Your task to perform on an android device: Find coffee shops on Maps Image 0: 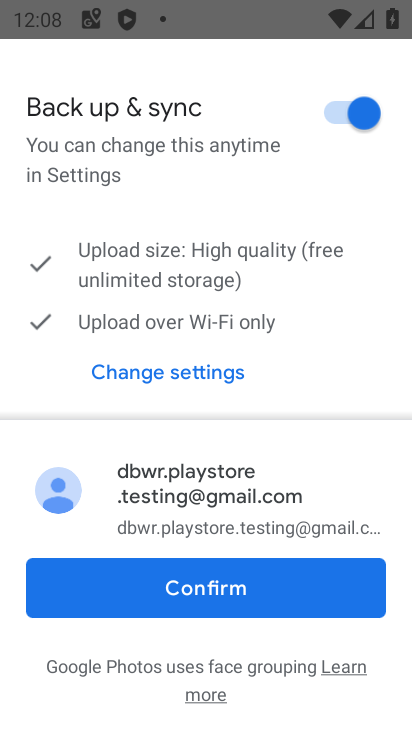
Step 0: press home button
Your task to perform on an android device: Find coffee shops on Maps Image 1: 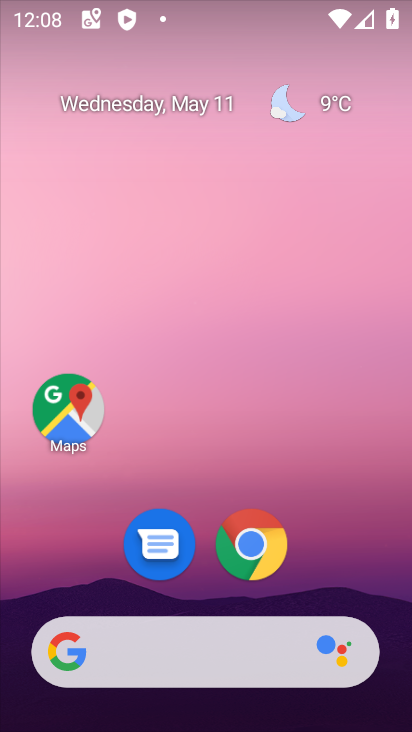
Step 1: click (61, 406)
Your task to perform on an android device: Find coffee shops on Maps Image 2: 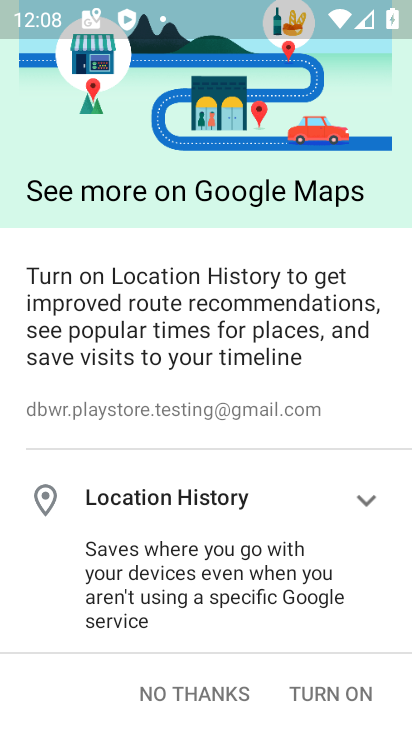
Step 2: click (194, 693)
Your task to perform on an android device: Find coffee shops on Maps Image 3: 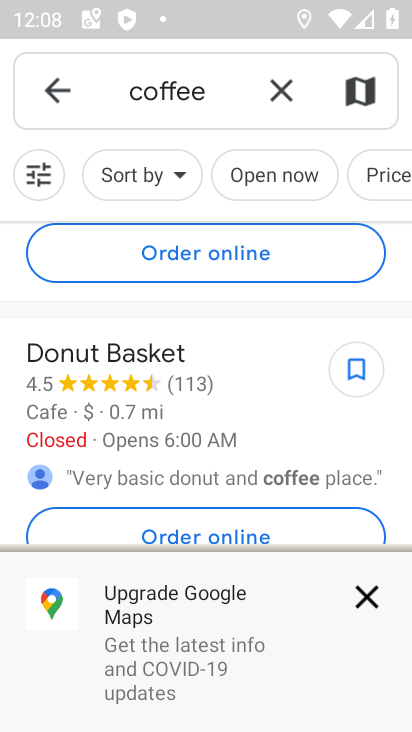
Step 3: task complete